Your task to perform on an android device: open wifi settings Image 0: 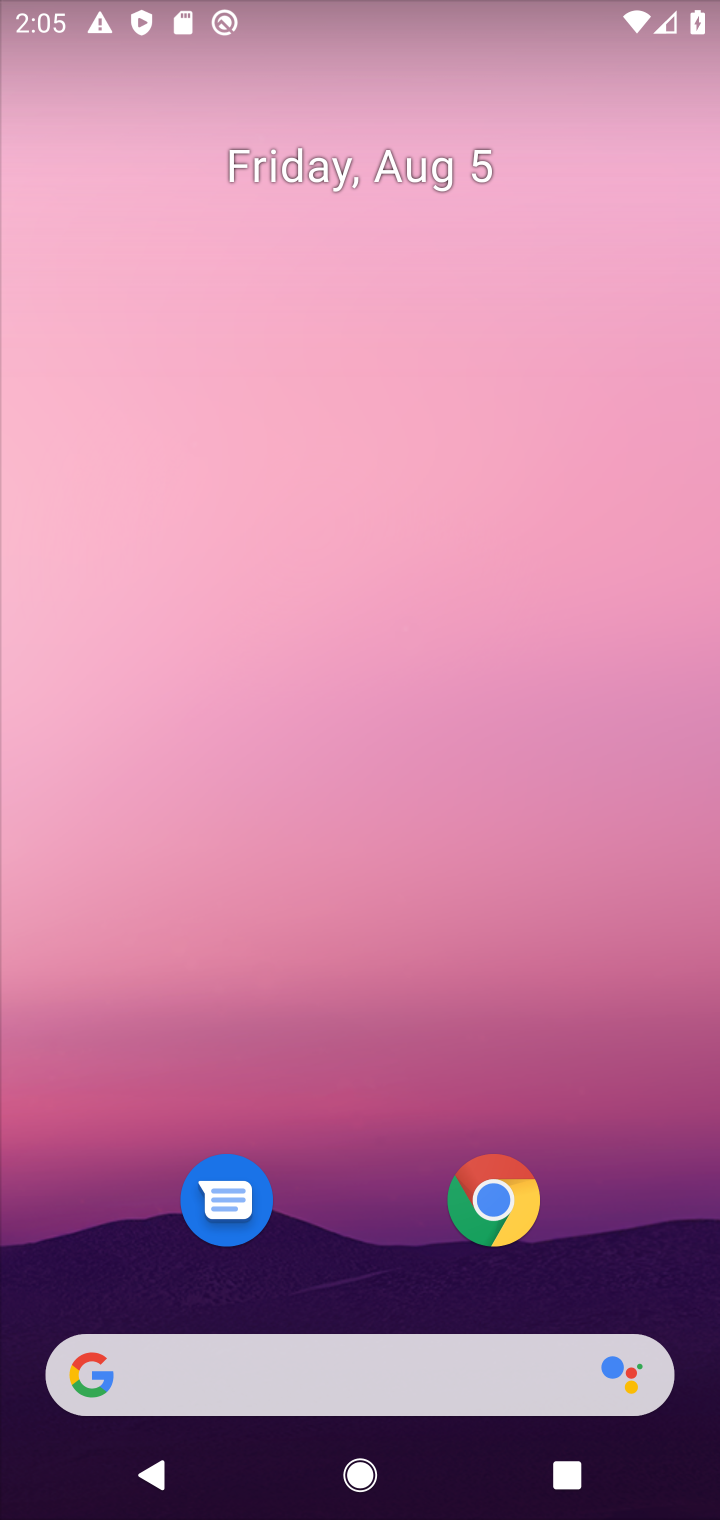
Step 0: drag from (301, 941) to (271, 191)
Your task to perform on an android device: open wifi settings Image 1: 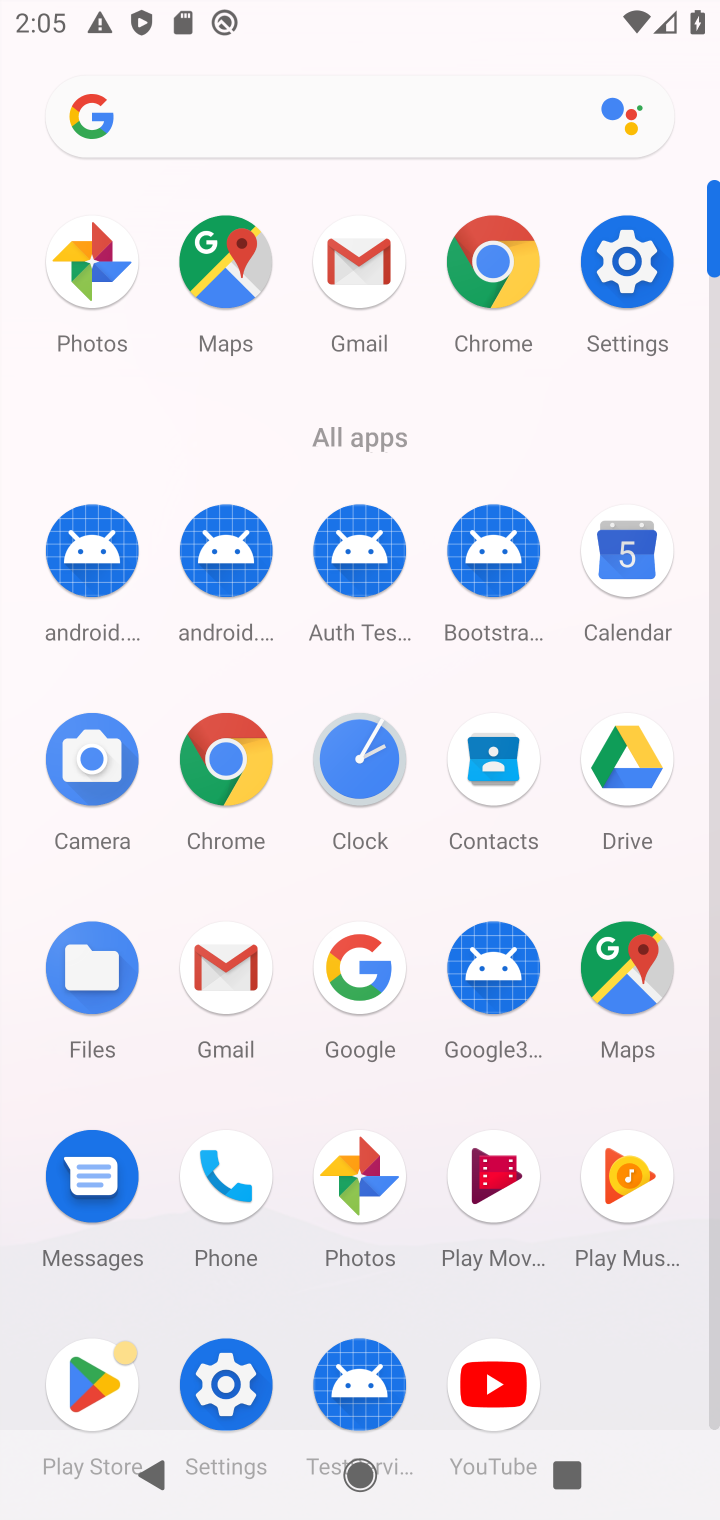
Step 1: click (616, 286)
Your task to perform on an android device: open wifi settings Image 2: 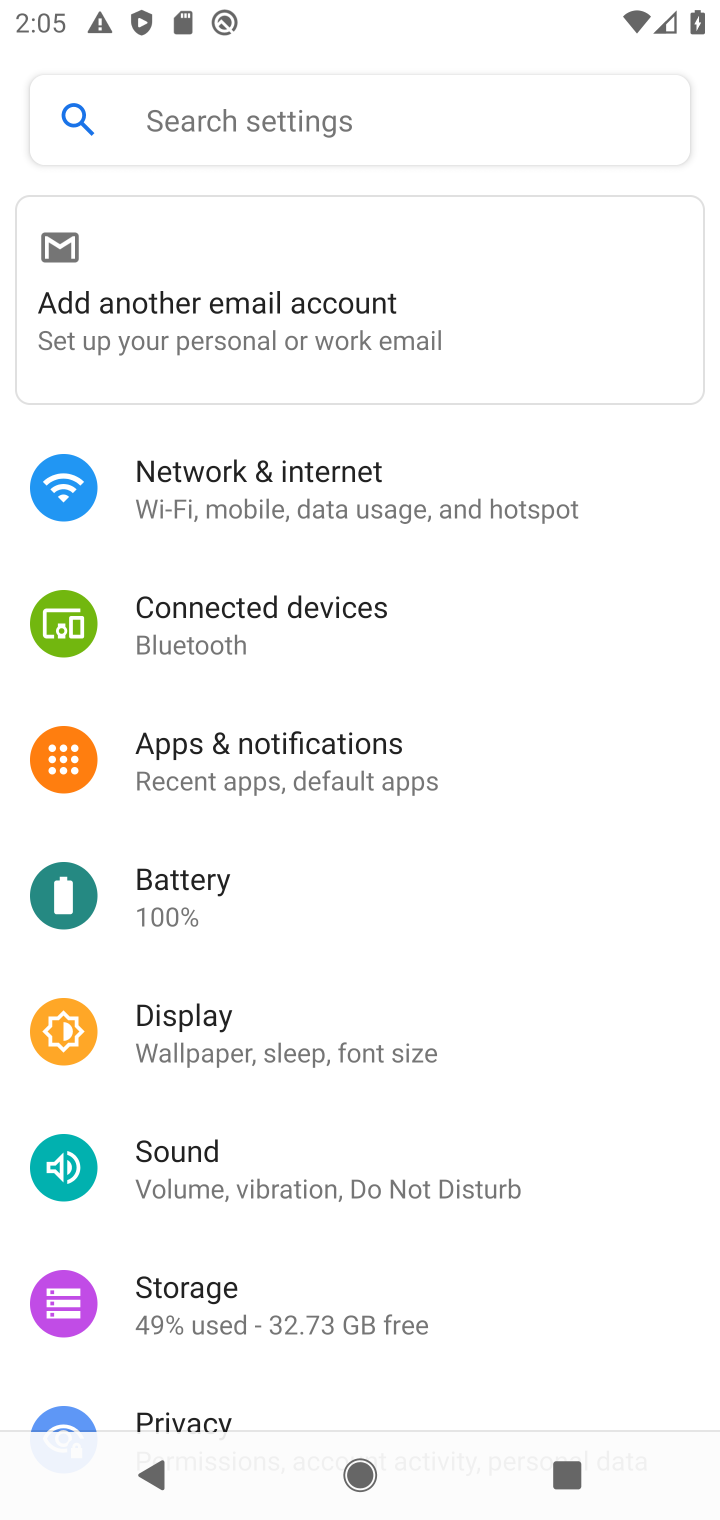
Step 2: click (247, 322)
Your task to perform on an android device: open wifi settings Image 3: 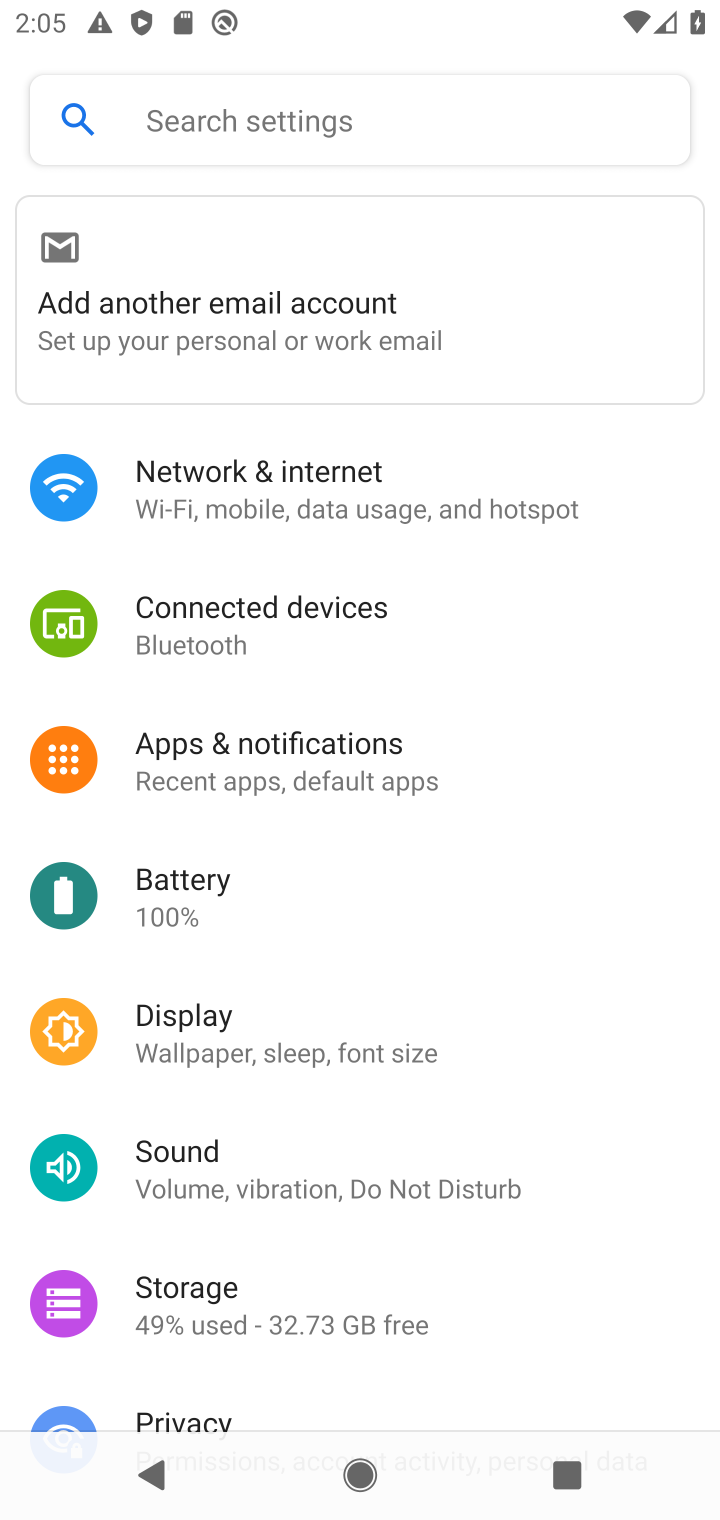
Step 3: click (298, 569)
Your task to perform on an android device: open wifi settings Image 4: 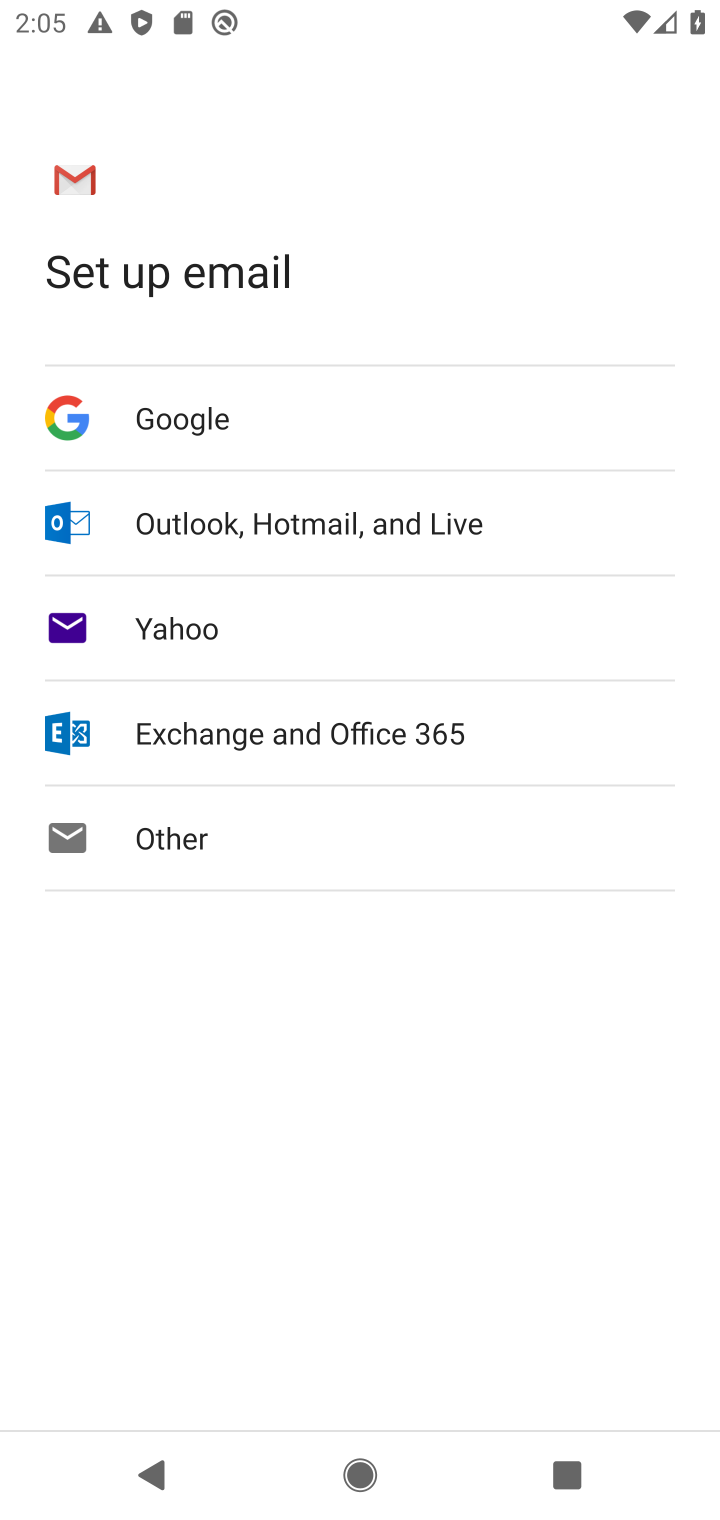
Step 4: press back button
Your task to perform on an android device: open wifi settings Image 5: 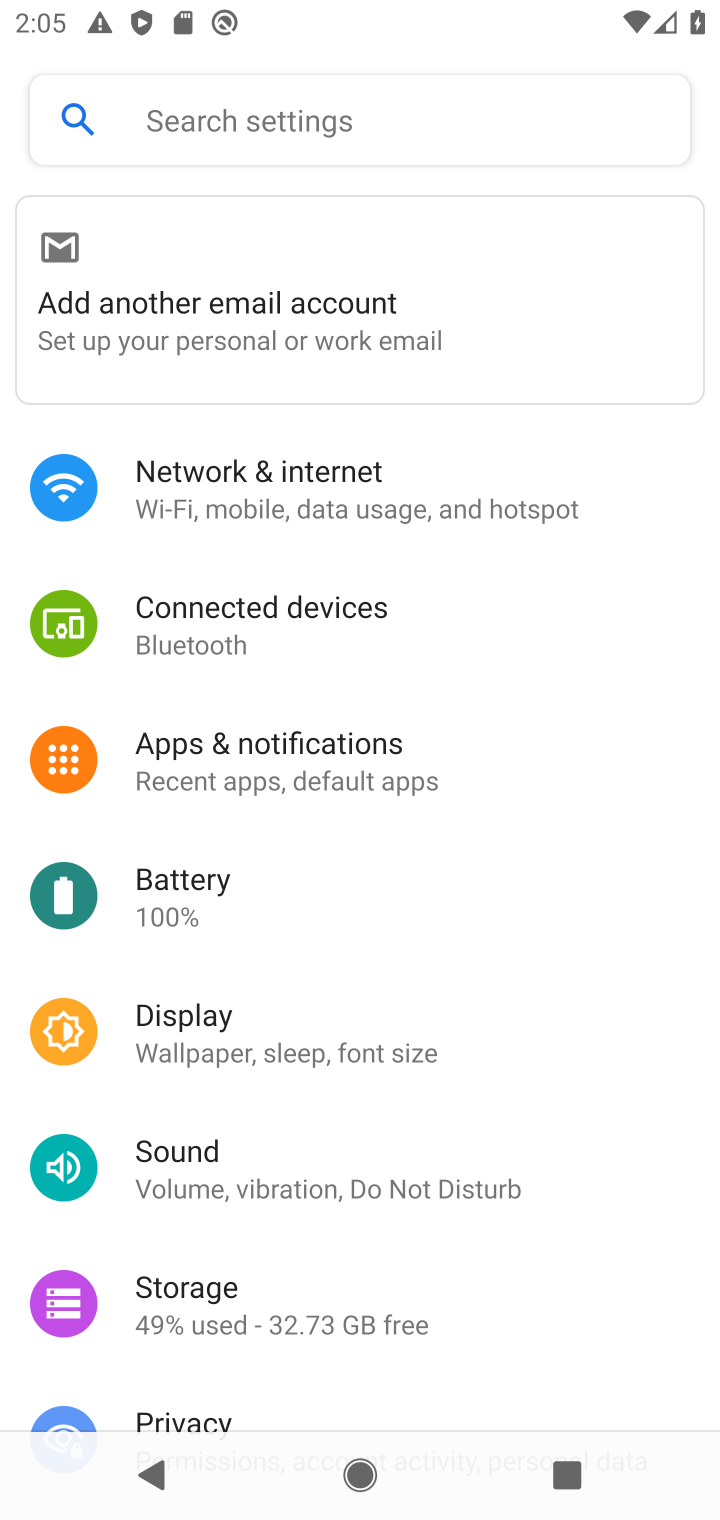
Step 5: click (280, 452)
Your task to perform on an android device: open wifi settings Image 6: 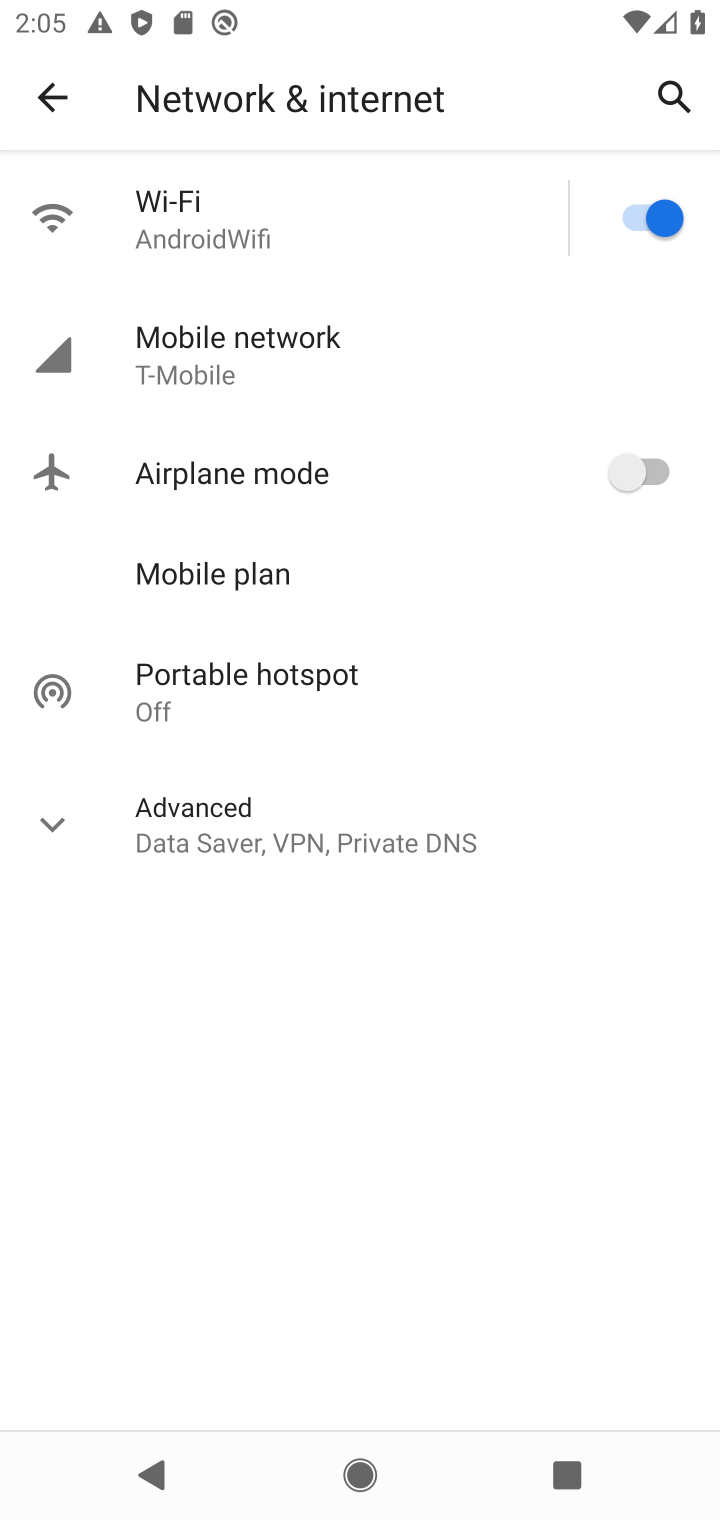
Step 6: click (234, 241)
Your task to perform on an android device: open wifi settings Image 7: 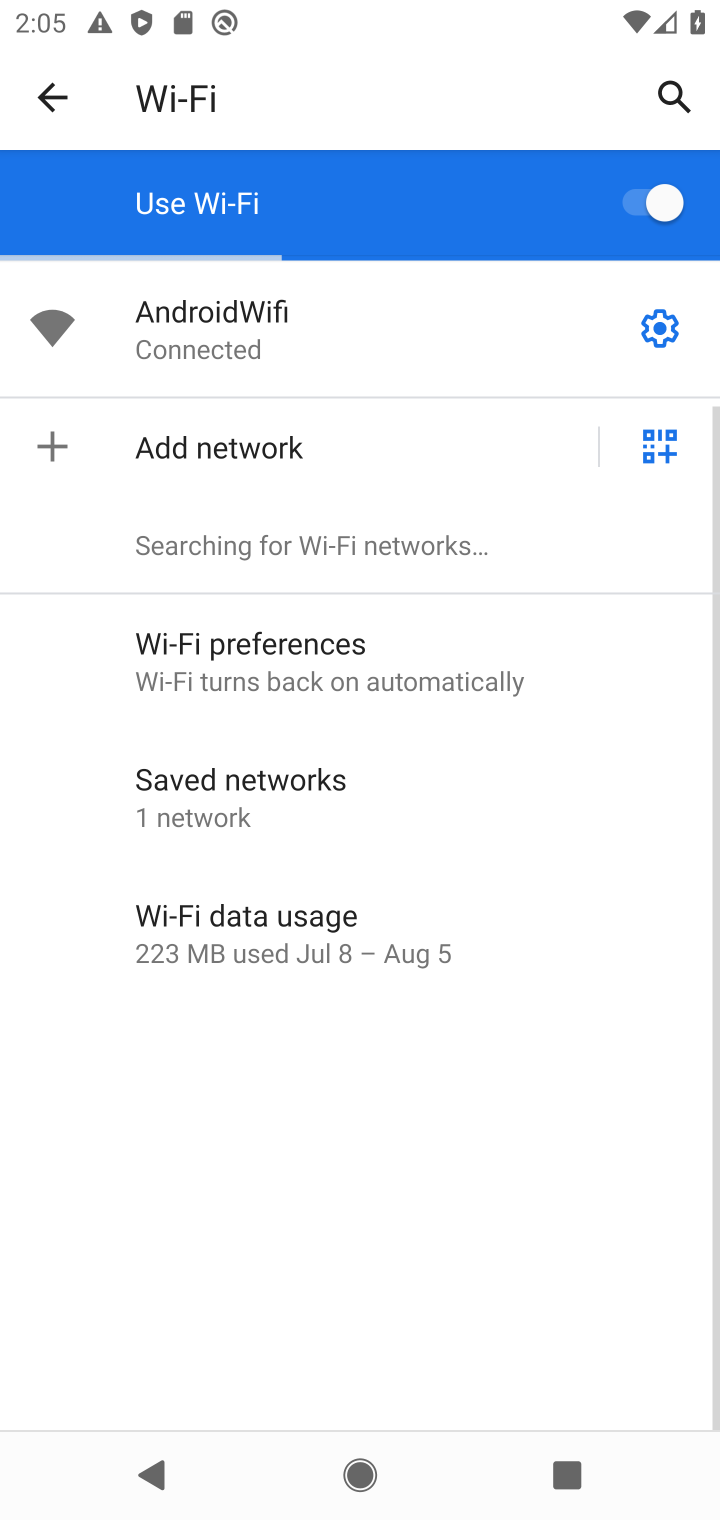
Step 7: task complete